Your task to perform on an android device: change notifications settings Image 0: 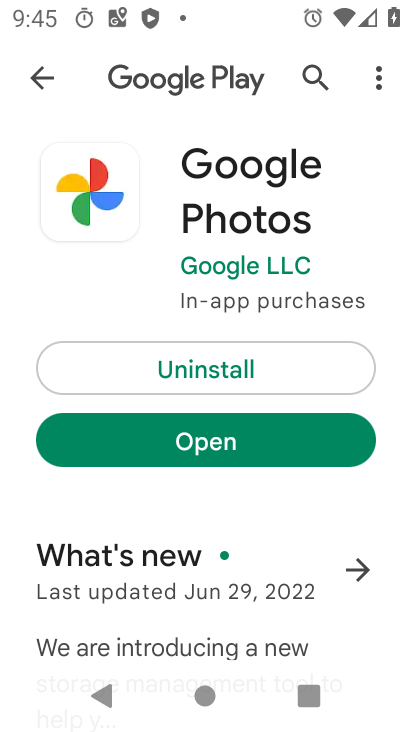
Step 0: press home button
Your task to perform on an android device: change notifications settings Image 1: 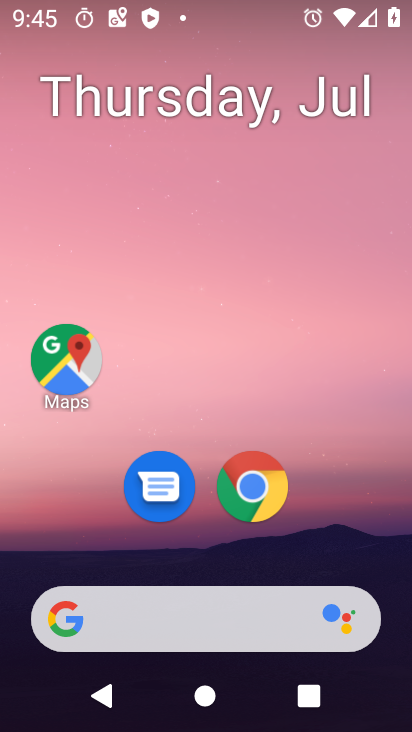
Step 1: drag from (228, 622) to (181, 197)
Your task to perform on an android device: change notifications settings Image 2: 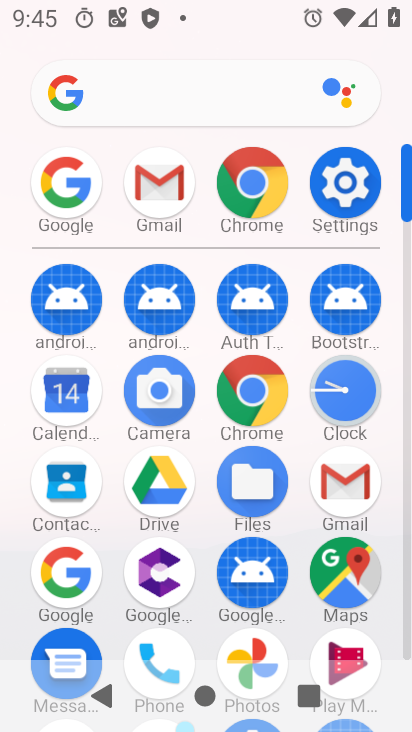
Step 2: click (350, 199)
Your task to perform on an android device: change notifications settings Image 3: 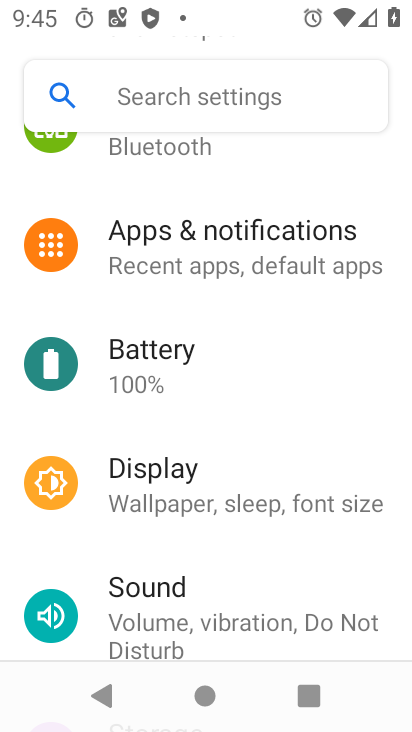
Step 3: click (232, 262)
Your task to perform on an android device: change notifications settings Image 4: 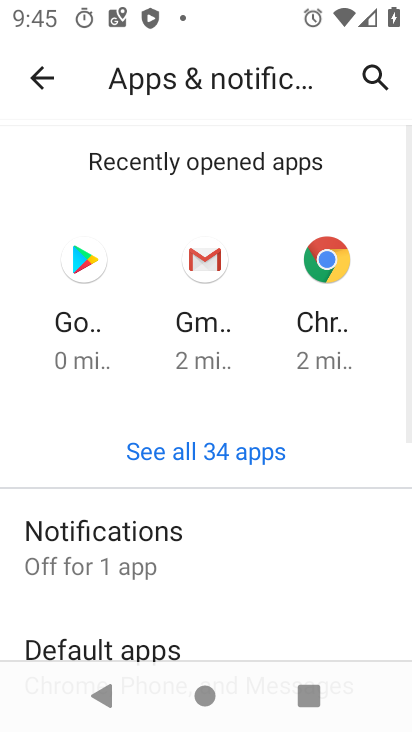
Step 4: click (126, 540)
Your task to perform on an android device: change notifications settings Image 5: 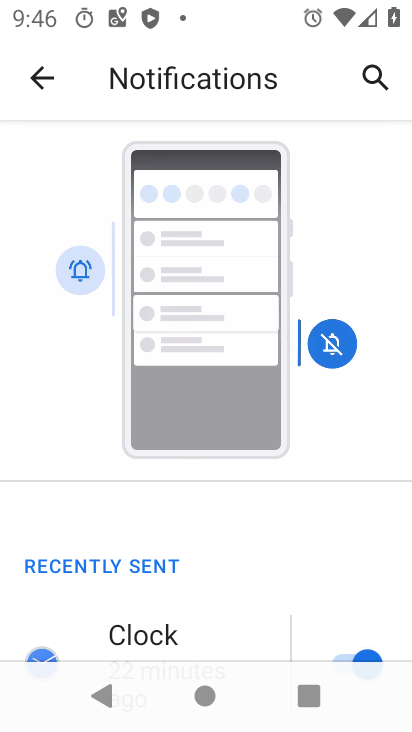
Step 5: click (357, 655)
Your task to perform on an android device: change notifications settings Image 6: 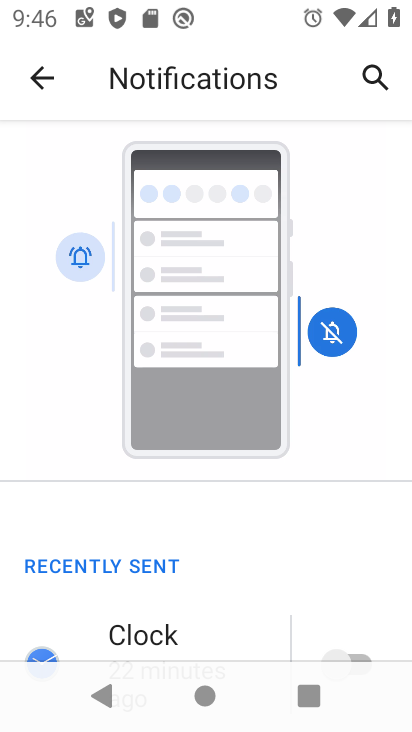
Step 6: task complete